Your task to perform on an android device: Open the Play Movies app and select the watchlist tab. Image 0: 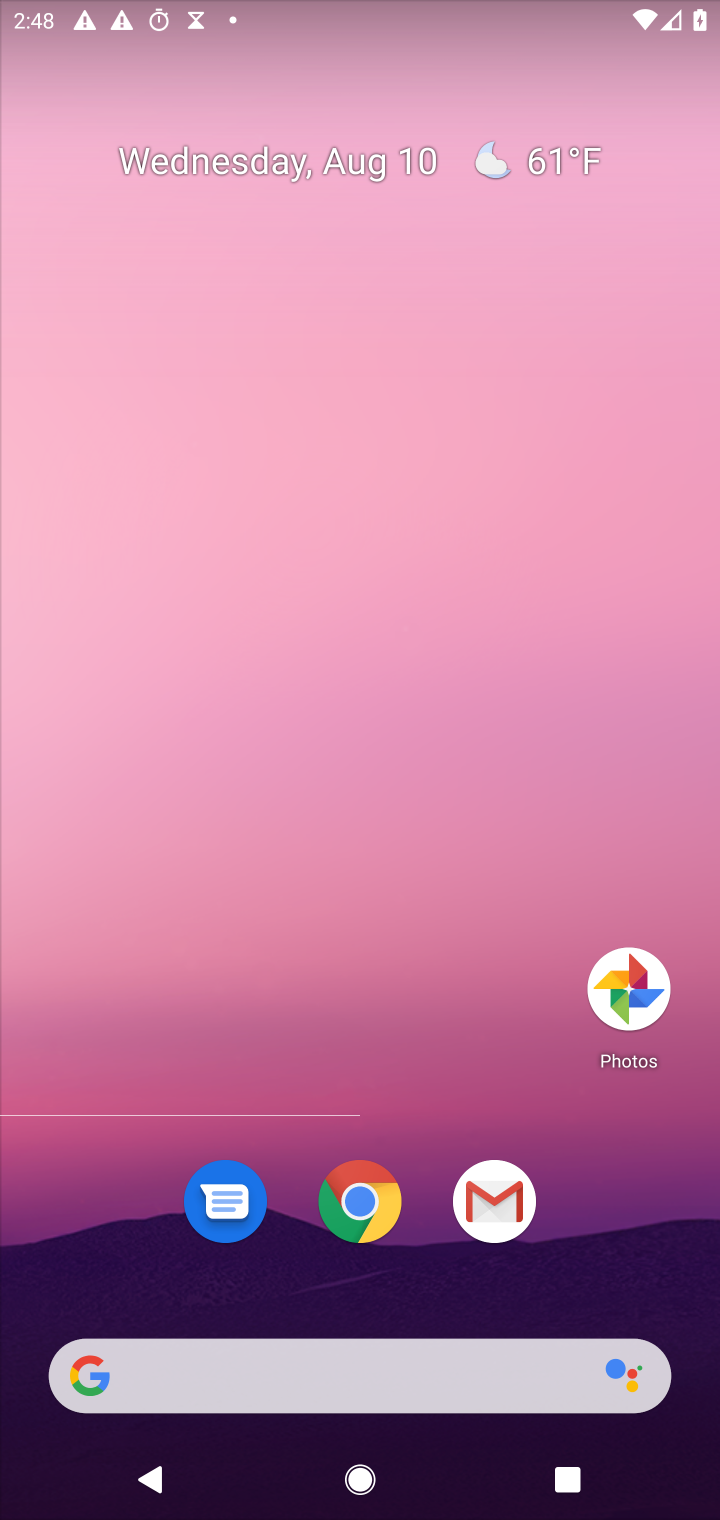
Step 0: drag from (464, 1256) to (557, 453)
Your task to perform on an android device: Open the Play Movies app and select the watchlist tab. Image 1: 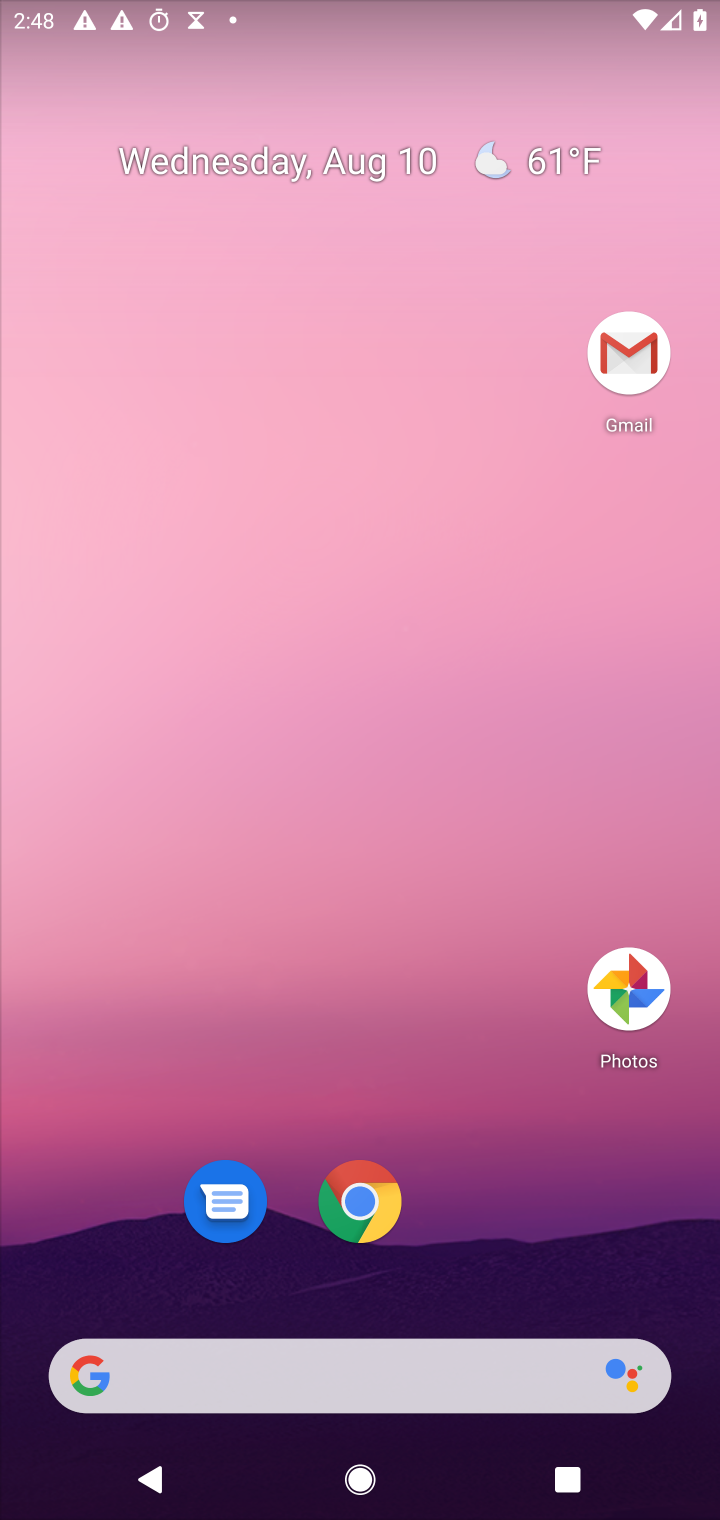
Step 1: drag from (426, 1261) to (487, 321)
Your task to perform on an android device: Open the Play Movies app and select the watchlist tab. Image 2: 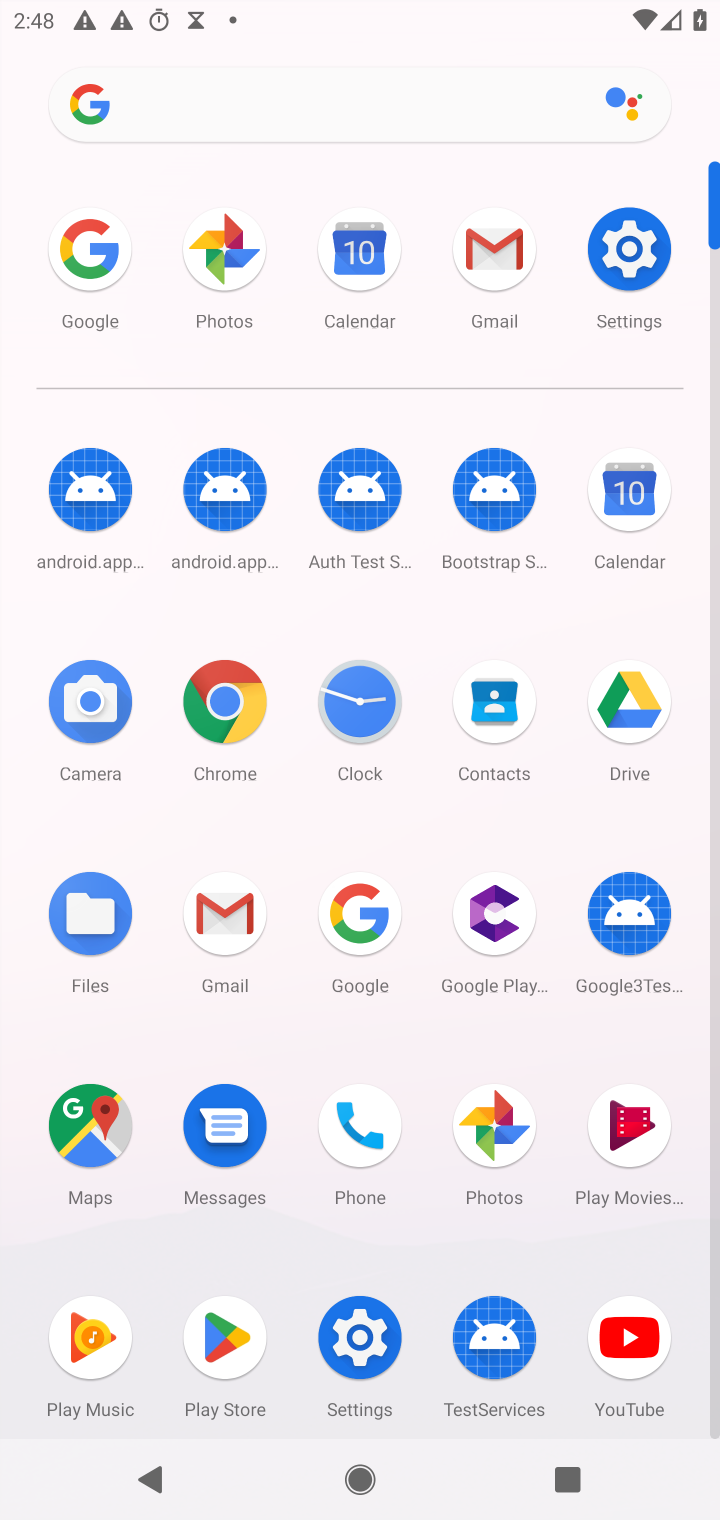
Step 2: click (627, 1126)
Your task to perform on an android device: Open the Play Movies app and select the watchlist tab. Image 3: 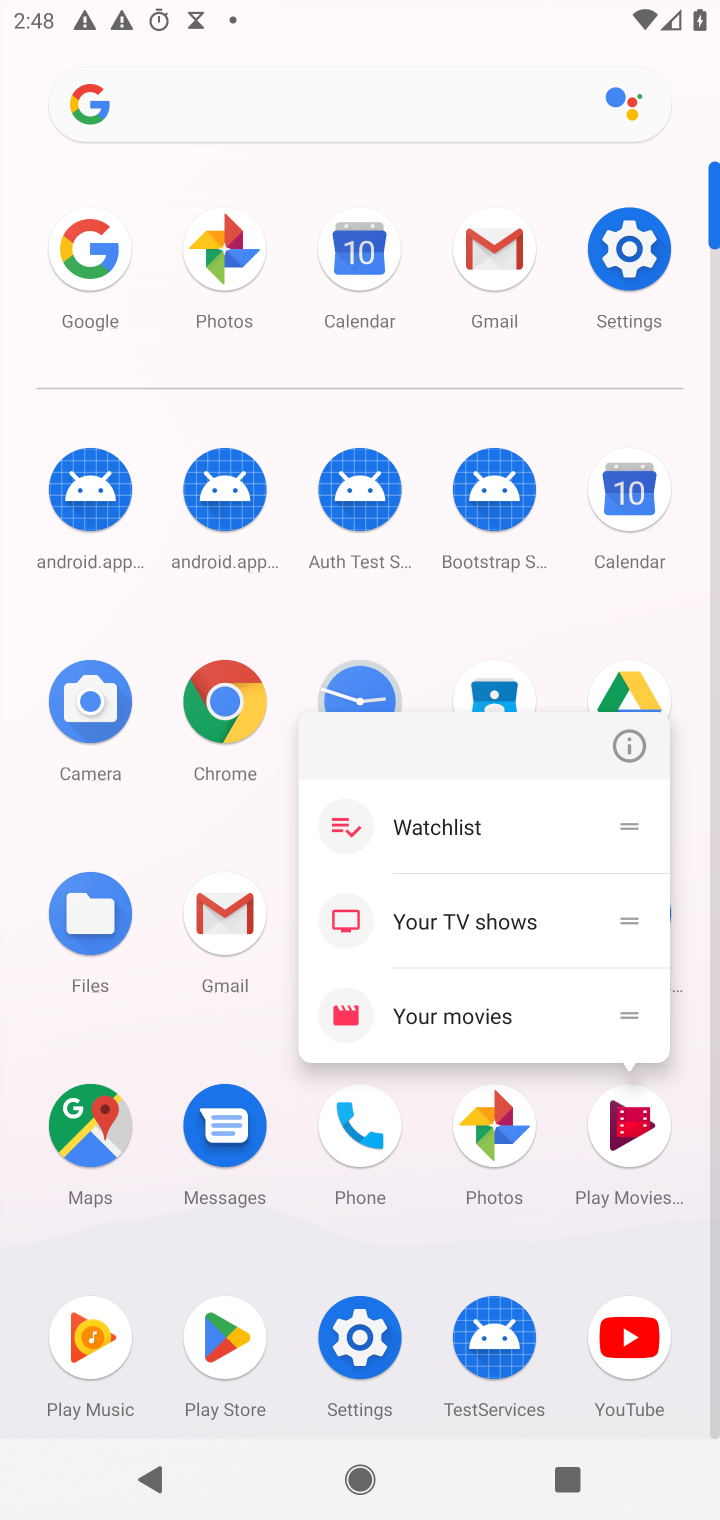
Step 3: click (643, 1154)
Your task to perform on an android device: Open the Play Movies app and select the watchlist tab. Image 4: 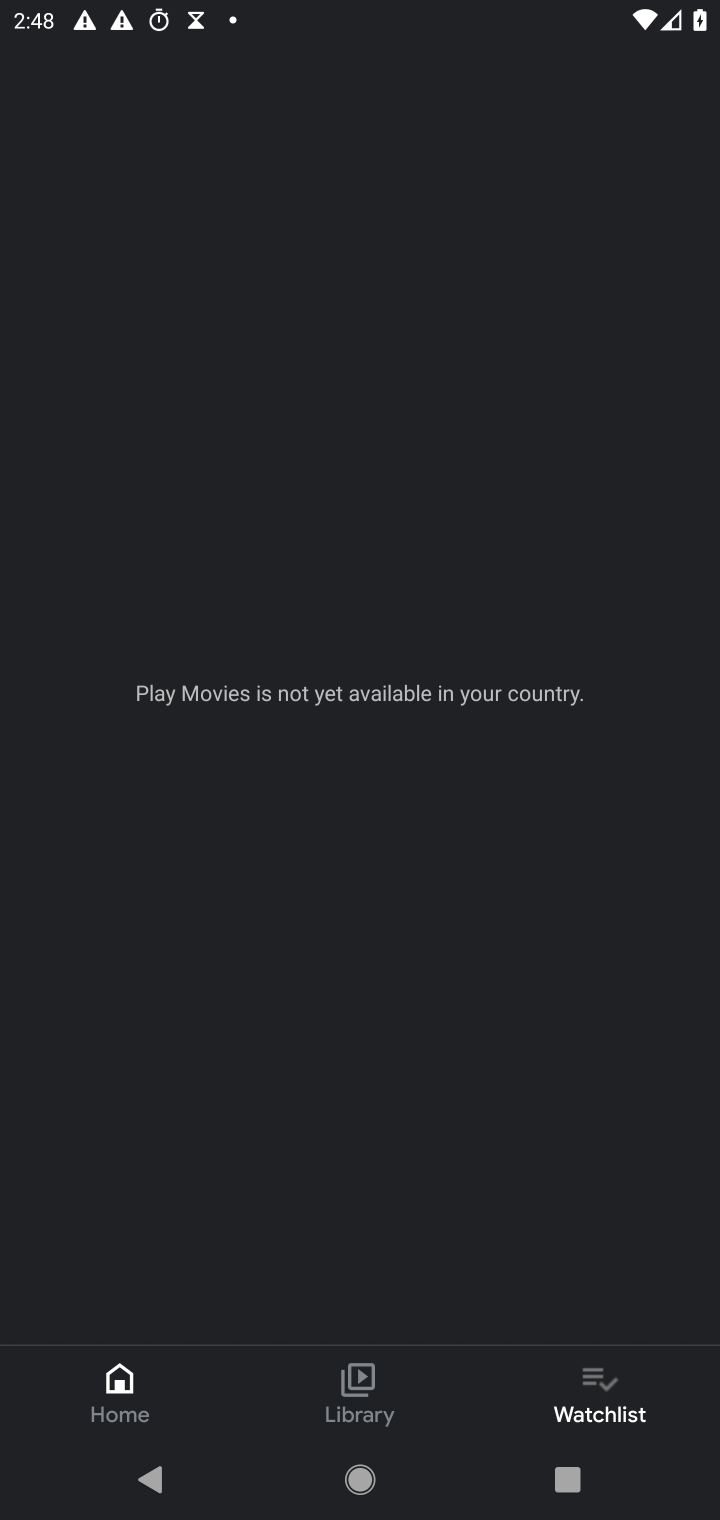
Step 4: click (584, 1383)
Your task to perform on an android device: Open the Play Movies app and select the watchlist tab. Image 5: 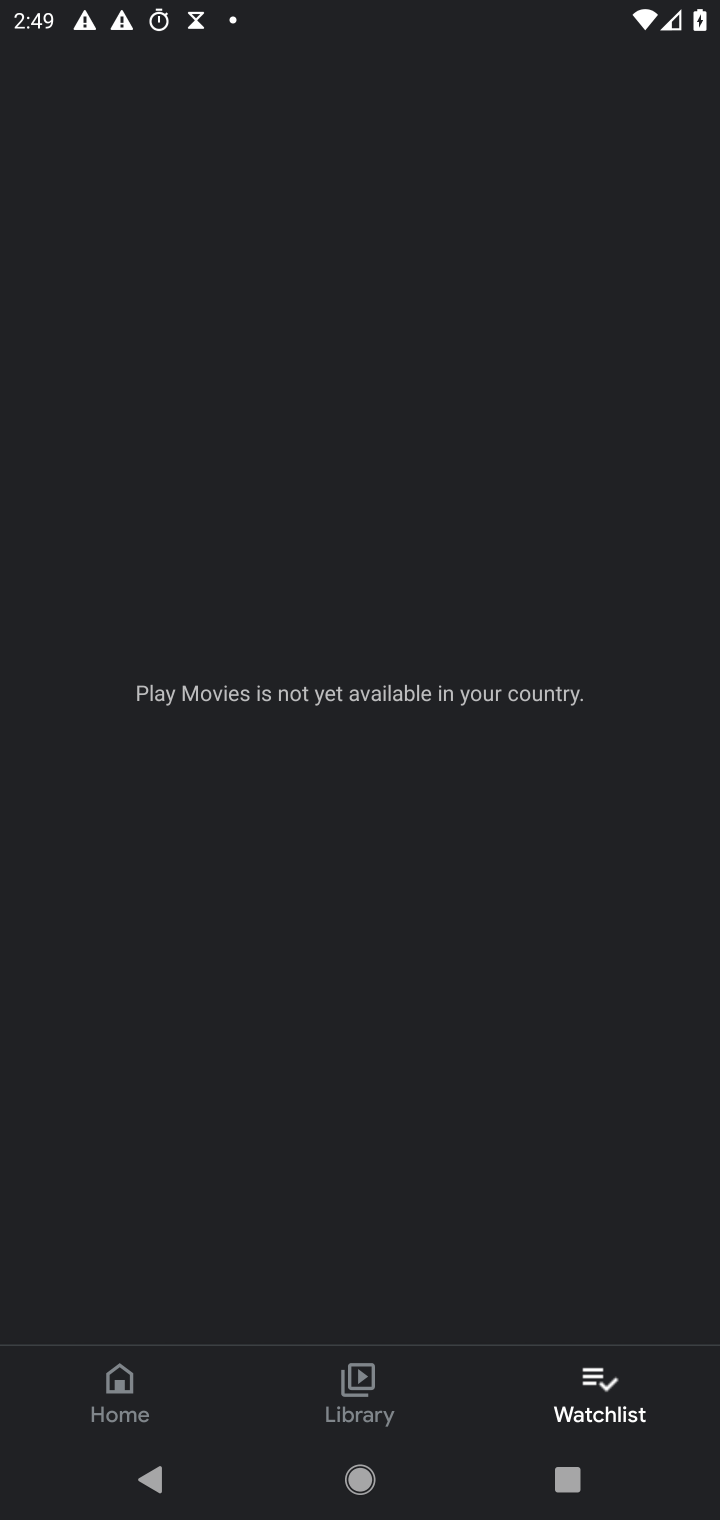
Step 5: task complete